Your task to perform on an android device: Open privacy settings Image 0: 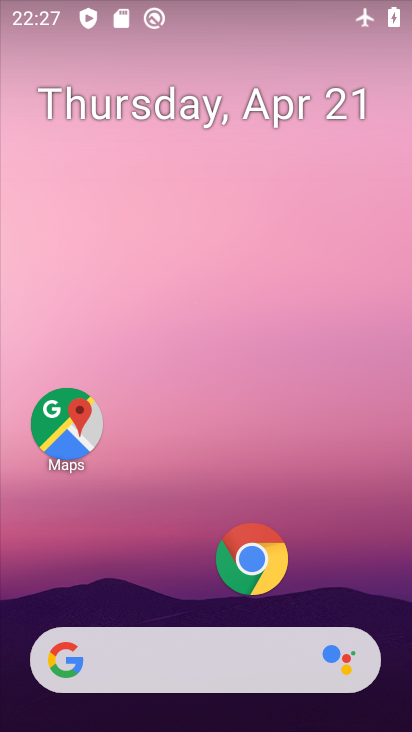
Step 0: drag from (173, 593) to (210, 87)
Your task to perform on an android device: Open privacy settings Image 1: 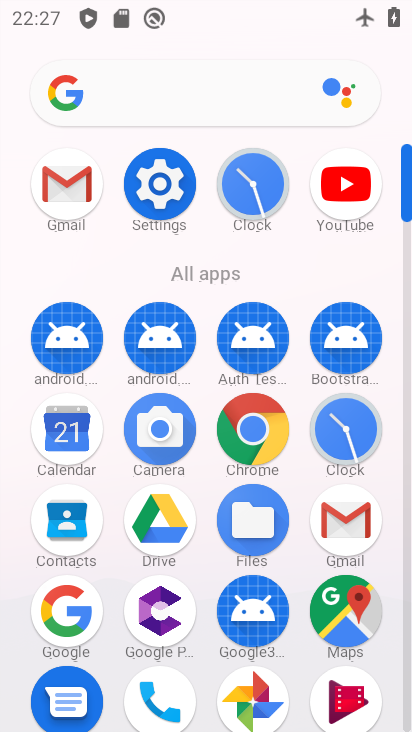
Step 1: click (164, 184)
Your task to perform on an android device: Open privacy settings Image 2: 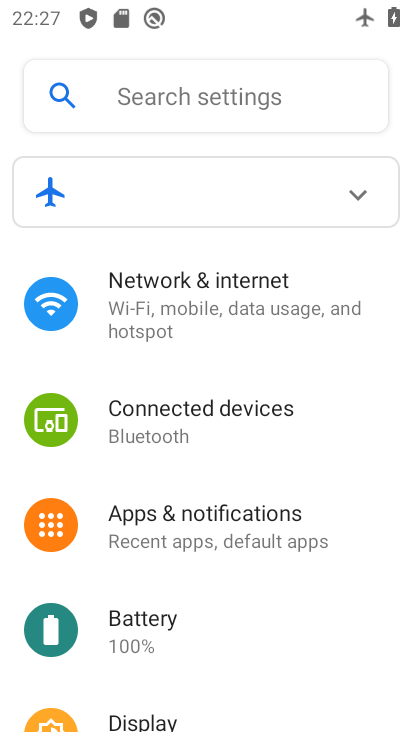
Step 2: drag from (214, 563) to (220, 199)
Your task to perform on an android device: Open privacy settings Image 3: 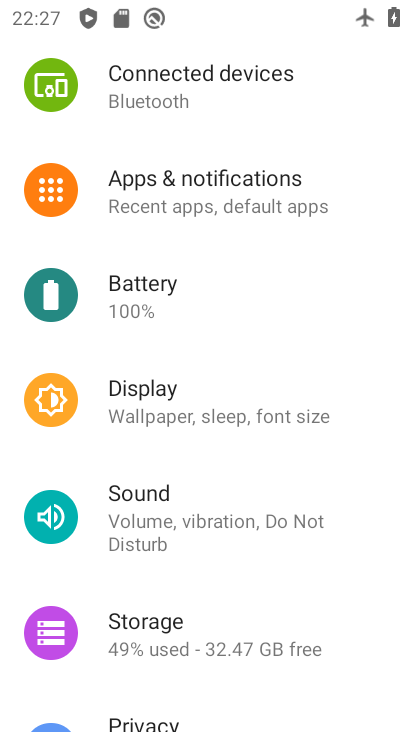
Step 3: drag from (239, 579) to (263, 356)
Your task to perform on an android device: Open privacy settings Image 4: 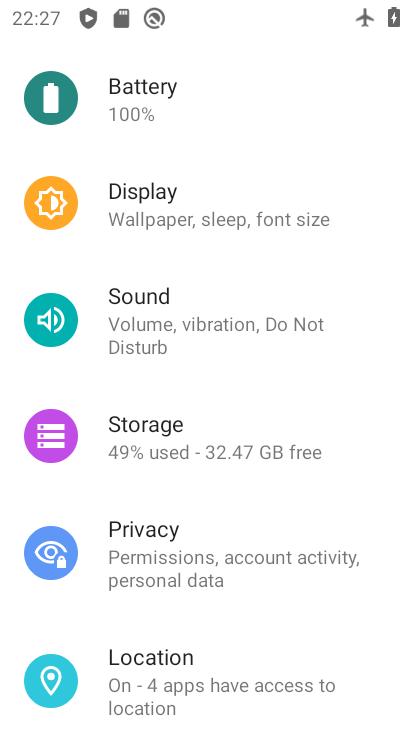
Step 4: click (162, 539)
Your task to perform on an android device: Open privacy settings Image 5: 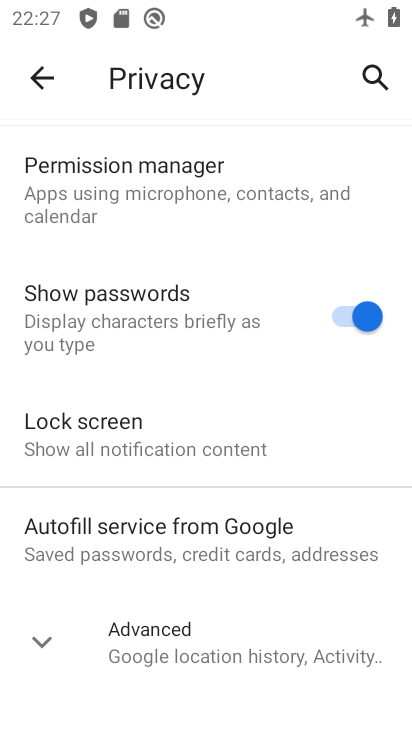
Step 5: task complete